Your task to perform on an android device: Search for seafood restaurants on Google Maps Image 0: 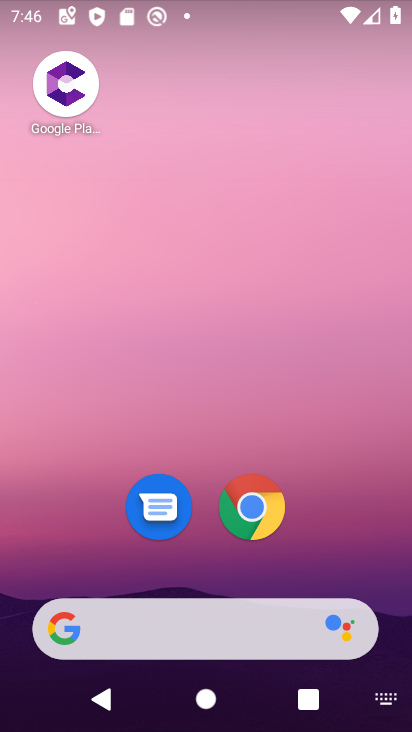
Step 0: drag from (326, 508) to (110, 12)
Your task to perform on an android device: Search for seafood restaurants on Google Maps Image 1: 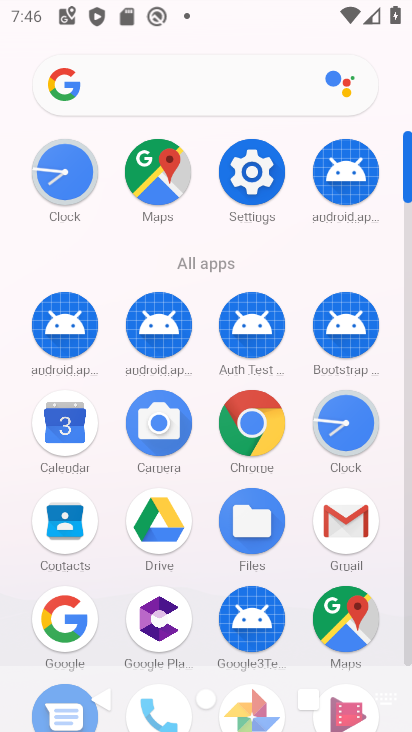
Step 1: click (178, 159)
Your task to perform on an android device: Search for seafood restaurants on Google Maps Image 2: 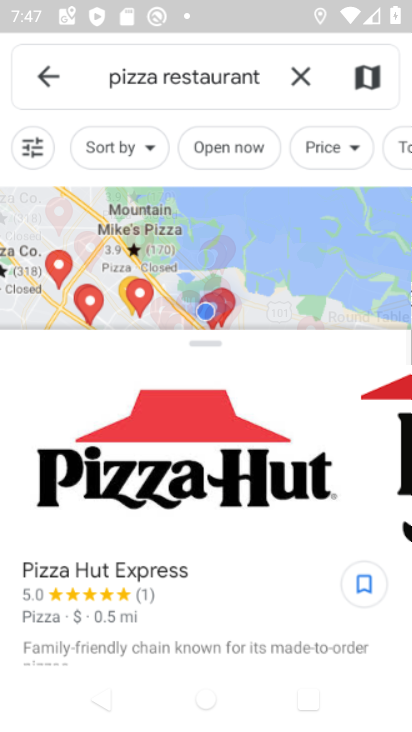
Step 2: click (304, 72)
Your task to perform on an android device: Search for seafood restaurants on Google Maps Image 3: 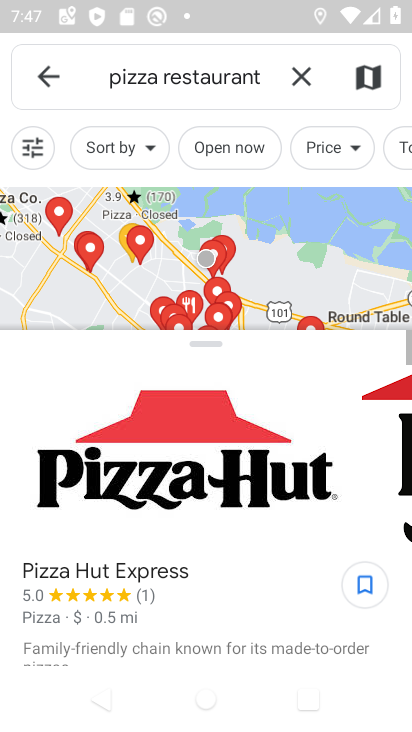
Step 3: click (212, 68)
Your task to perform on an android device: Search for seafood restaurants on Google Maps Image 4: 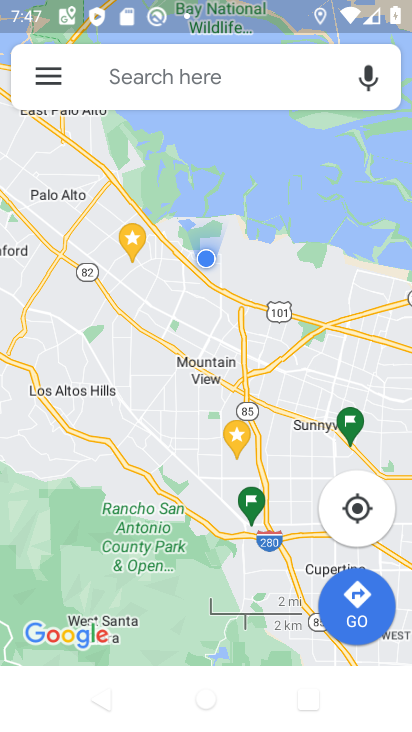
Step 4: click (215, 71)
Your task to perform on an android device: Search for seafood restaurants on Google Maps Image 5: 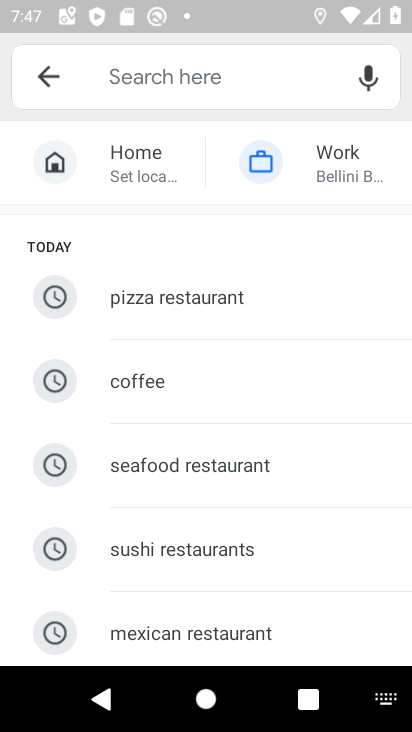
Step 5: click (215, 463)
Your task to perform on an android device: Search for seafood restaurants on Google Maps Image 6: 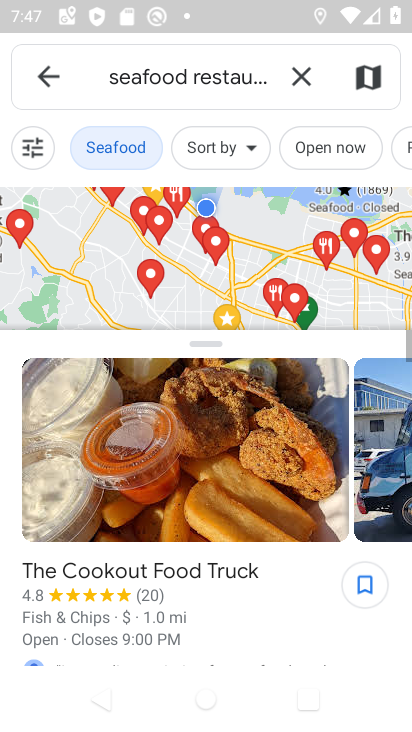
Step 6: task complete